Your task to perform on an android device: Open Youtube and go to "Your channel" Image 0: 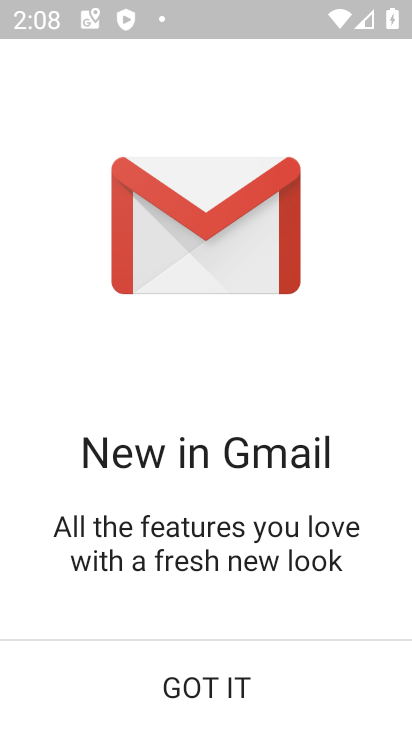
Step 0: press home button
Your task to perform on an android device: Open Youtube and go to "Your channel" Image 1: 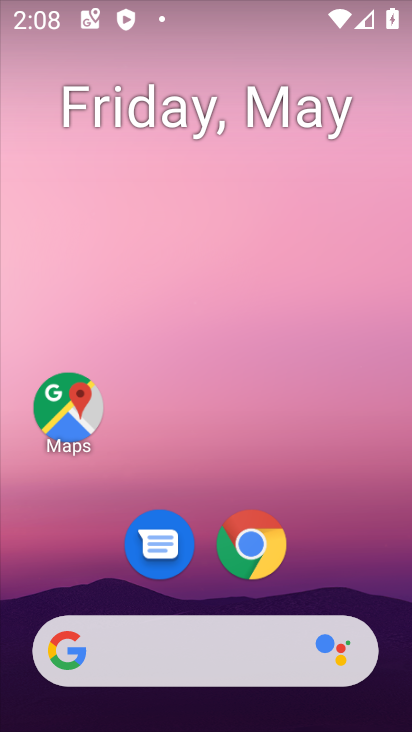
Step 1: drag from (204, 600) to (239, 134)
Your task to perform on an android device: Open Youtube and go to "Your channel" Image 2: 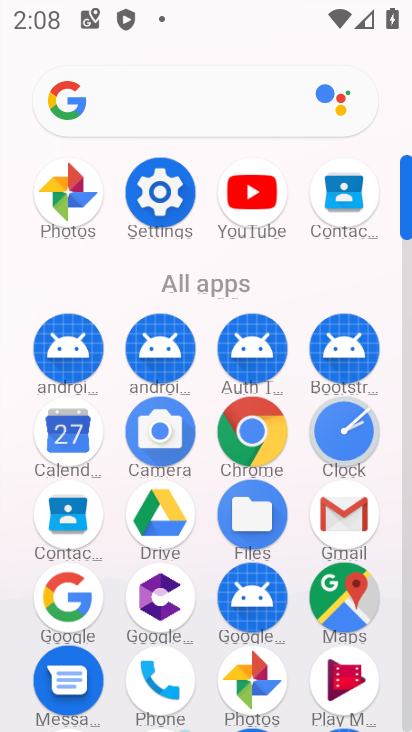
Step 2: click (232, 196)
Your task to perform on an android device: Open Youtube and go to "Your channel" Image 3: 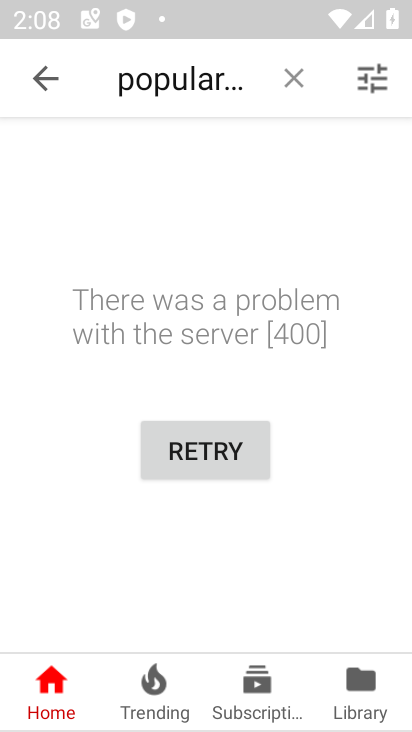
Step 3: click (384, 82)
Your task to perform on an android device: Open Youtube and go to "Your channel" Image 4: 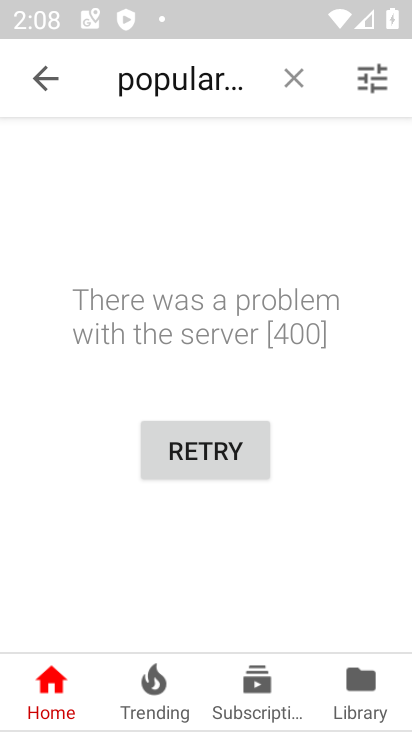
Step 4: click (376, 83)
Your task to perform on an android device: Open Youtube and go to "Your channel" Image 5: 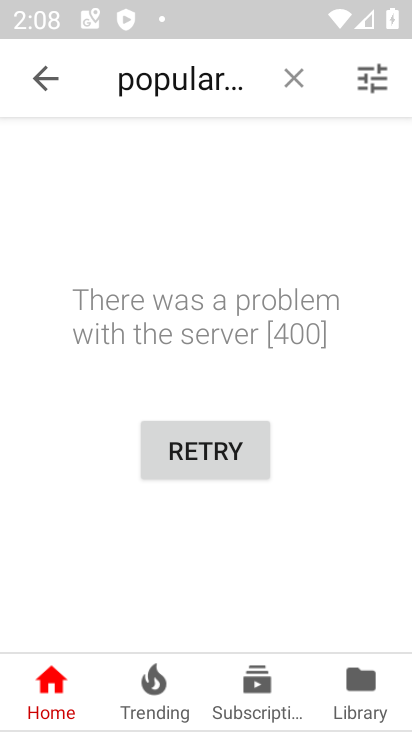
Step 5: click (376, 83)
Your task to perform on an android device: Open Youtube and go to "Your channel" Image 6: 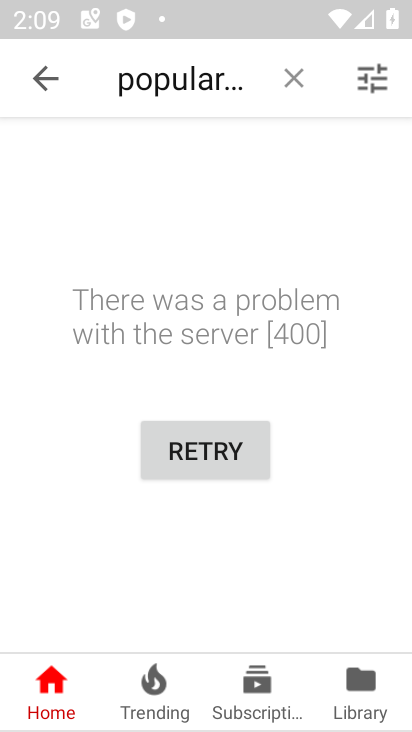
Step 6: click (184, 436)
Your task to perform on an android device: Open Youtube and go to "Your channel" Image 7: 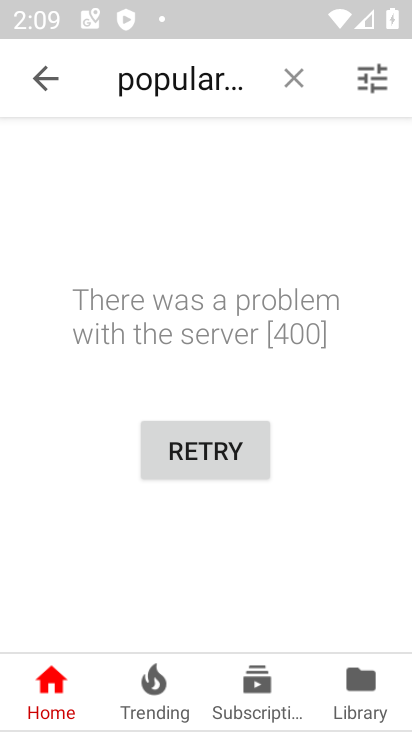
Step 7: click (371, 75)
Your task to perform on an android device: Open Youtube and go to "Your channel" Image 8: 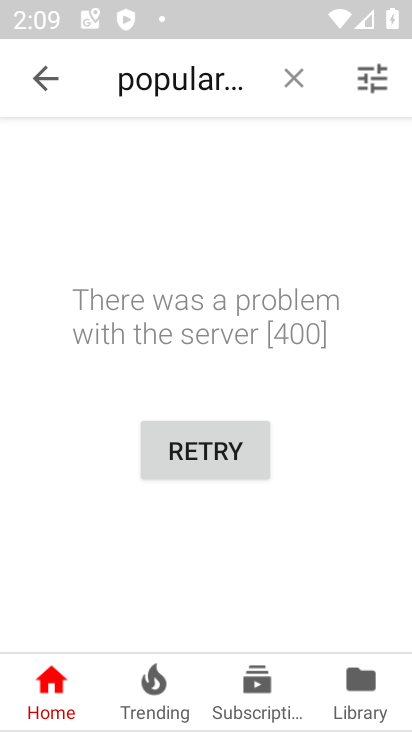
Step 8: task complete